Your task to perform on an android device: What's a good restaurant in San Jose? Image 0: 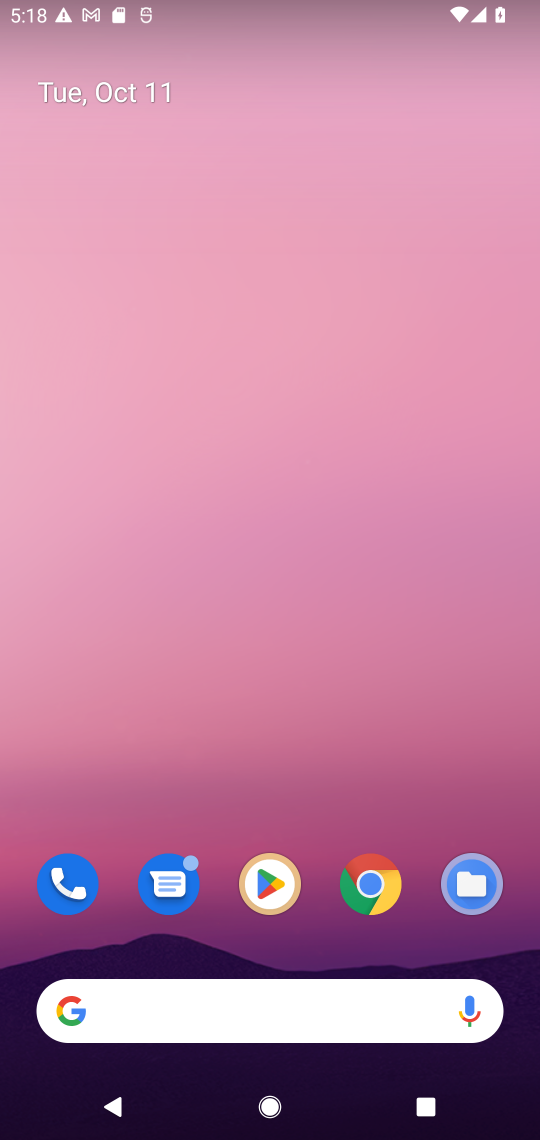
Step 0: drag from (302, 874) to (177, 94)
Your task to perform on an android device: What's a good restaurant in San Jose? Image 1: 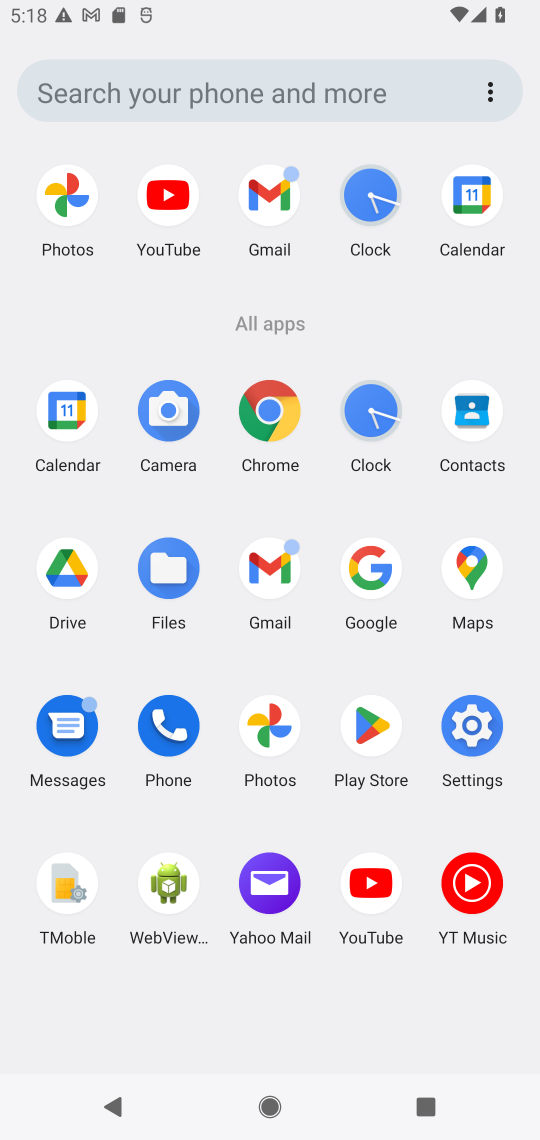
Step 1: click (366, 559)
Your task to perform on an android device: What's a good restaurant in San Jose? Image 2: 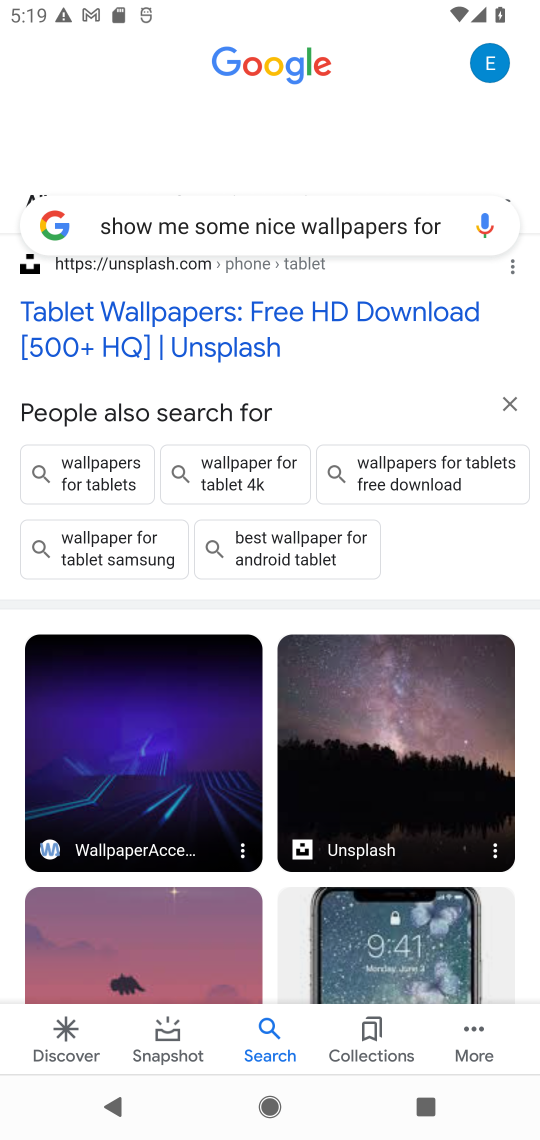
Step 2: click (174, 221)
Your task to perform on an android device: What's a good restaurant in San Jose? Image 3: 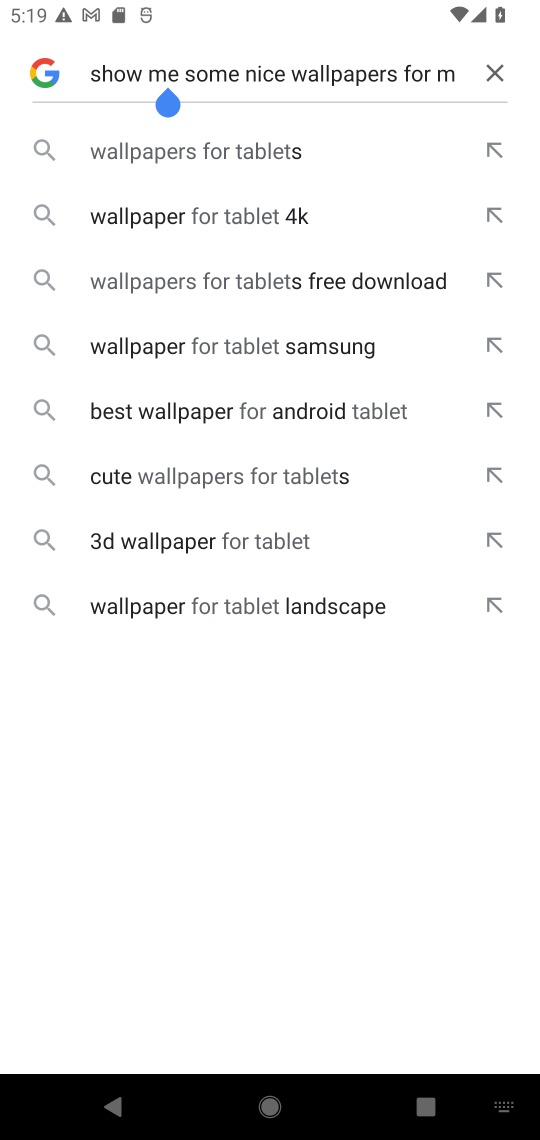
Step 3: click (495, 67)
Your task to perform on an android device: What's a good restaurant in San Jose? Image 4: 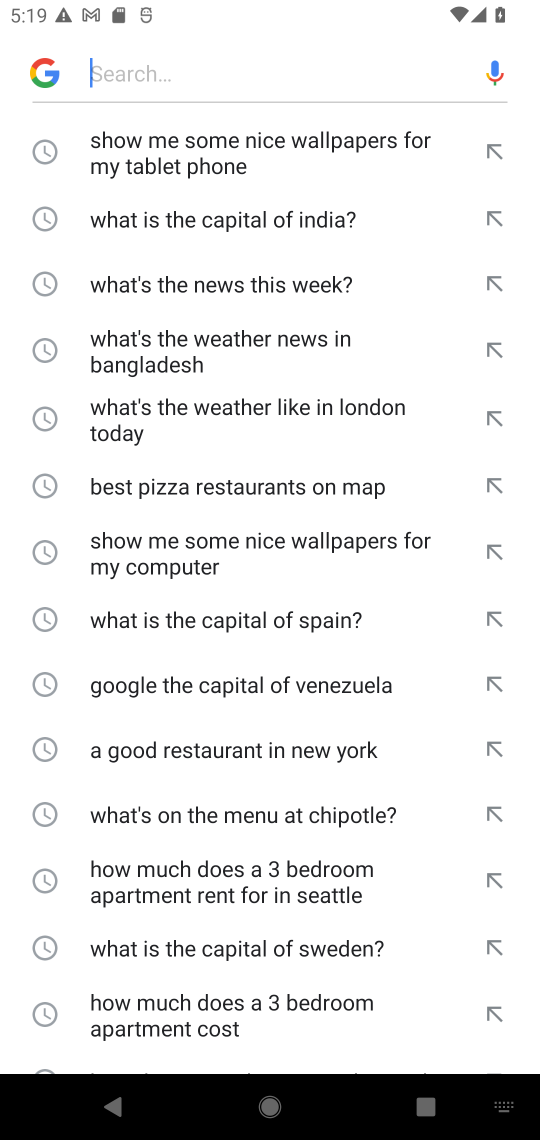
Step 4: type "What's a good restaurant in San Jose?"
Your task to perform on an android device: What's a good restaurant in San Jose? Image 5: 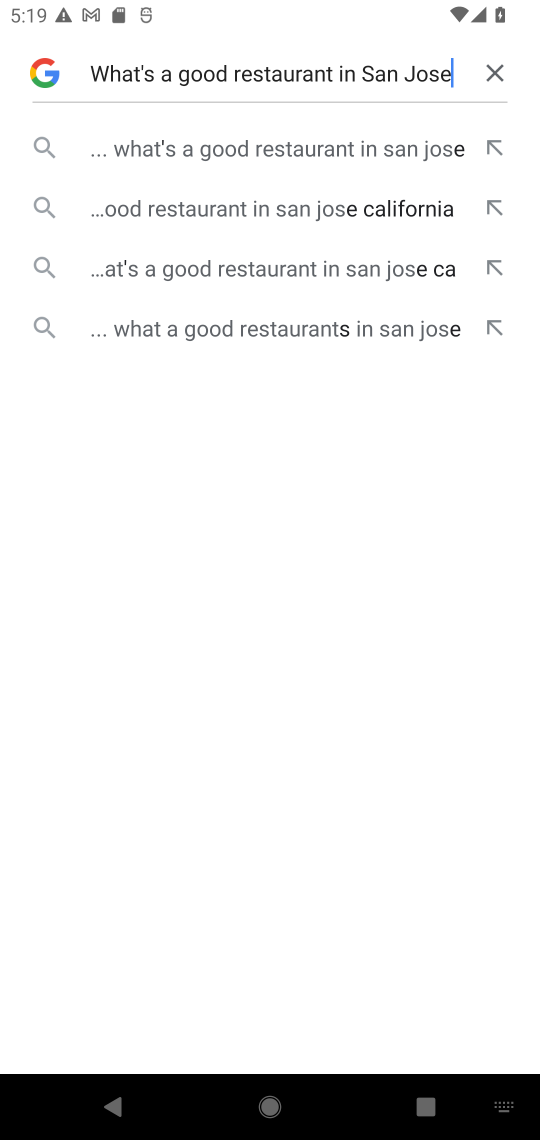
Step 5: type ""
Your task to perform on an android device: What's a good restaurant in San Jose? Image 6: 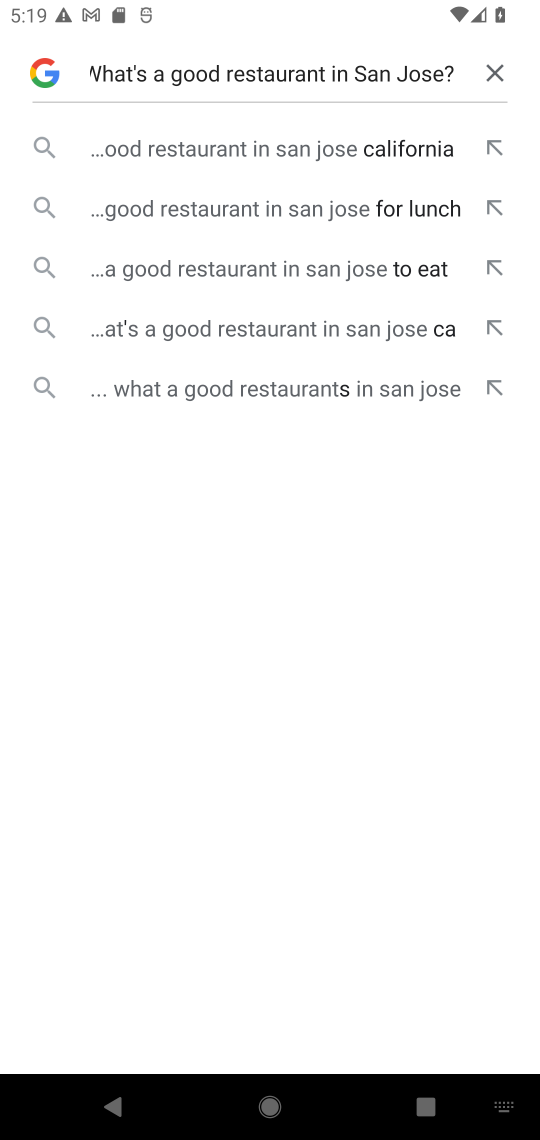
Step 6: click (252, 395)
Your task to perform on an android device: What's a good restaurant in San Jose? Image 7: 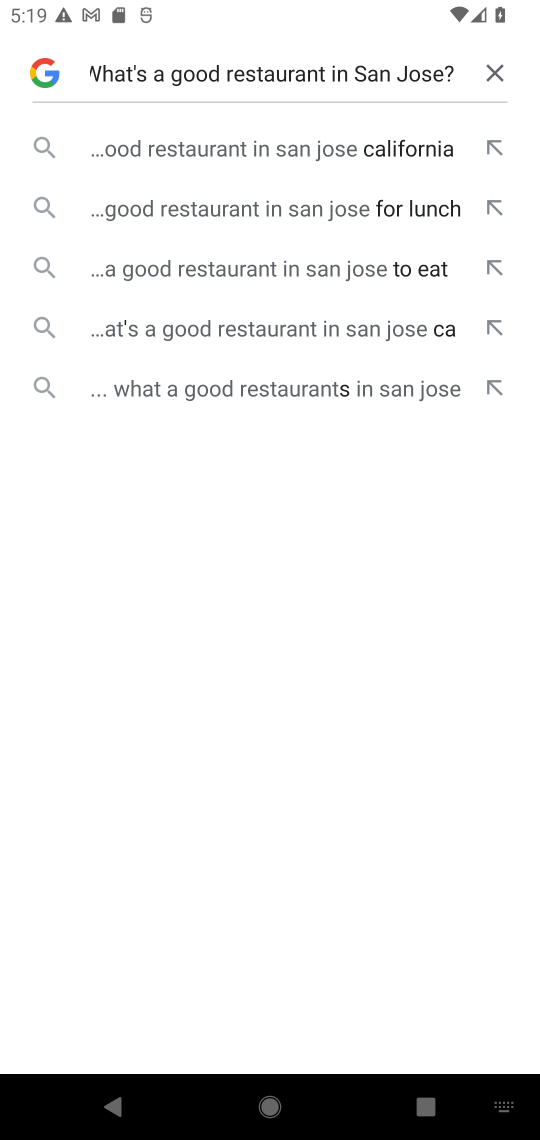
Step 7: click (390, 394)
Your task to perform on an android device: What's a good restaurant in San Jose? Image 8: 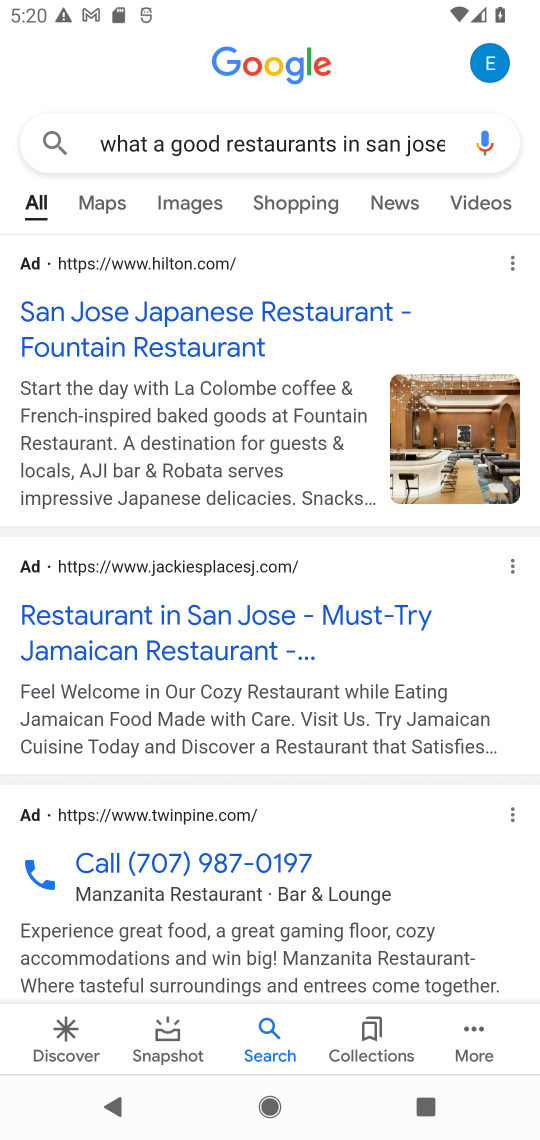
Step 8: task complete